Your task to perform on an android device: open app "Pandora - Music & Podcasts" (install if not already installed) and go to login screen Image 0: 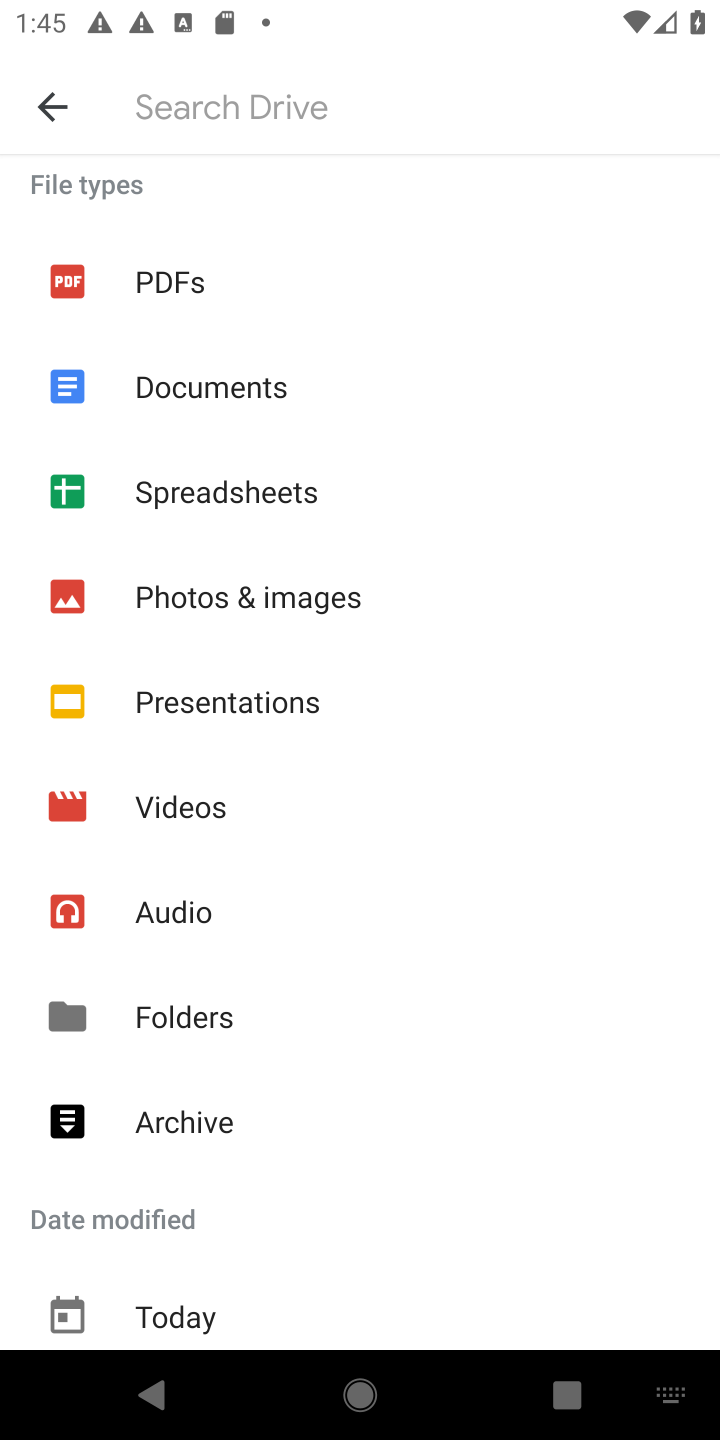
Step 0: press home button
Your task to perform on an android device: open app "Pandora - Music & Podcasts" (install if not already installed) and go to login screen Image 1: 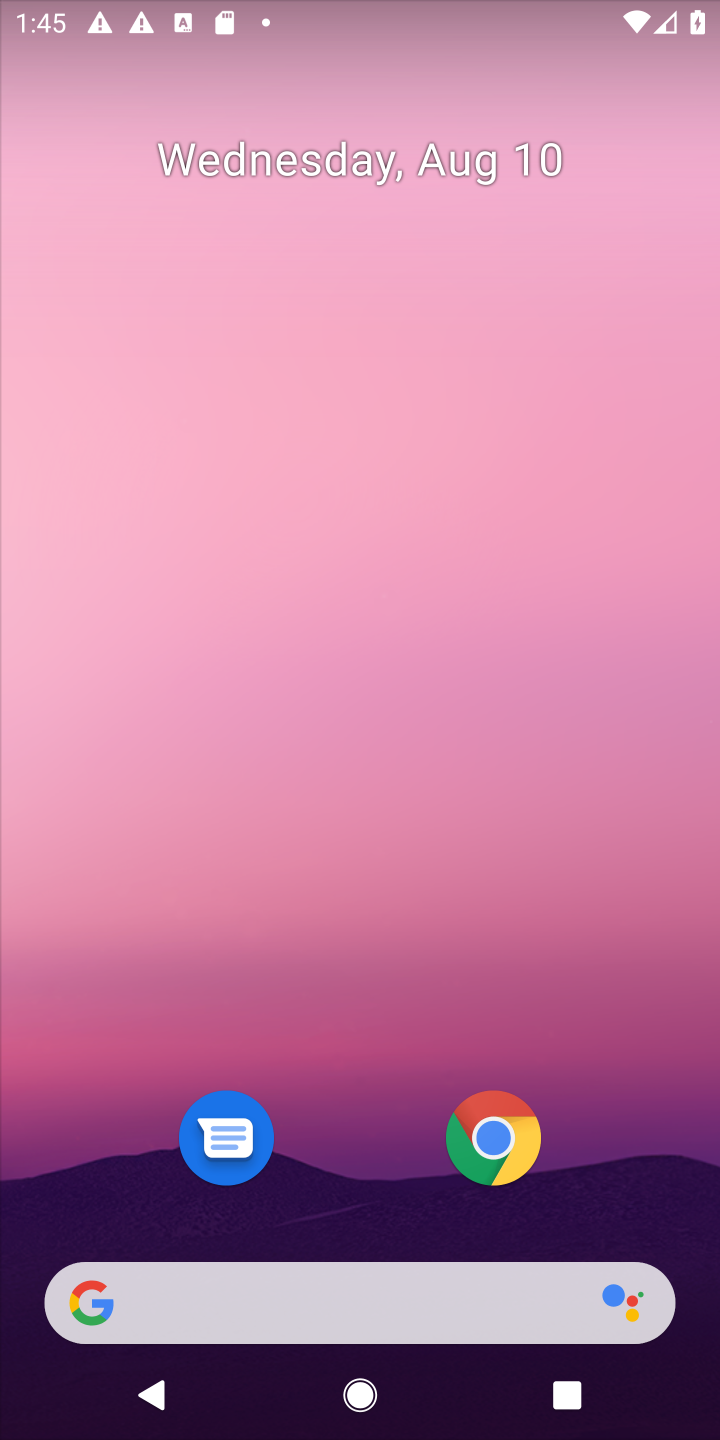
Step 1: drag from (614, 1048) to (626, 85)
Your task to perform on an android device: open app "Pandora - Music & Podcasts" (install if not already installed) and go to login screen Image 2: 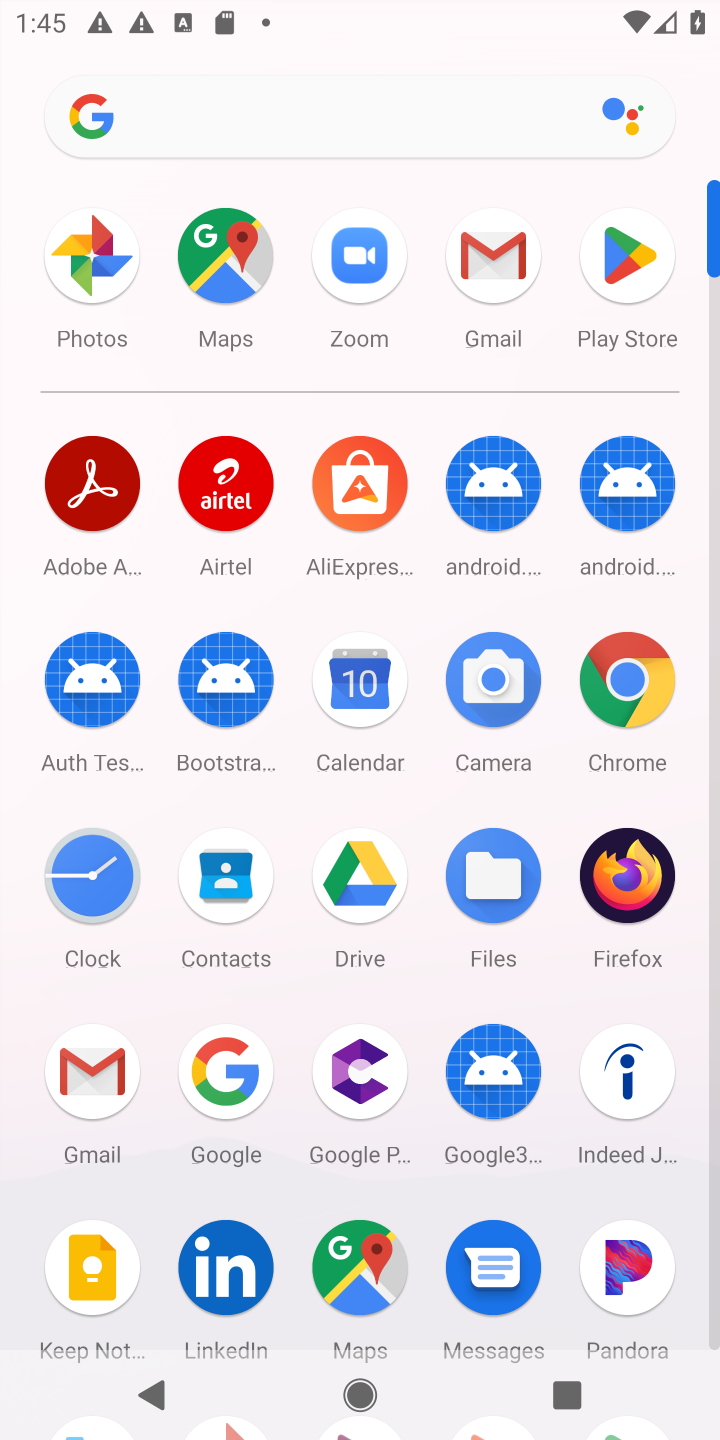
Step 2: click (639, 263)
Your task to perform on an android device: open app "Pandora - Music & Podcasts" (install if not already installed) and go to login screen Image 3: 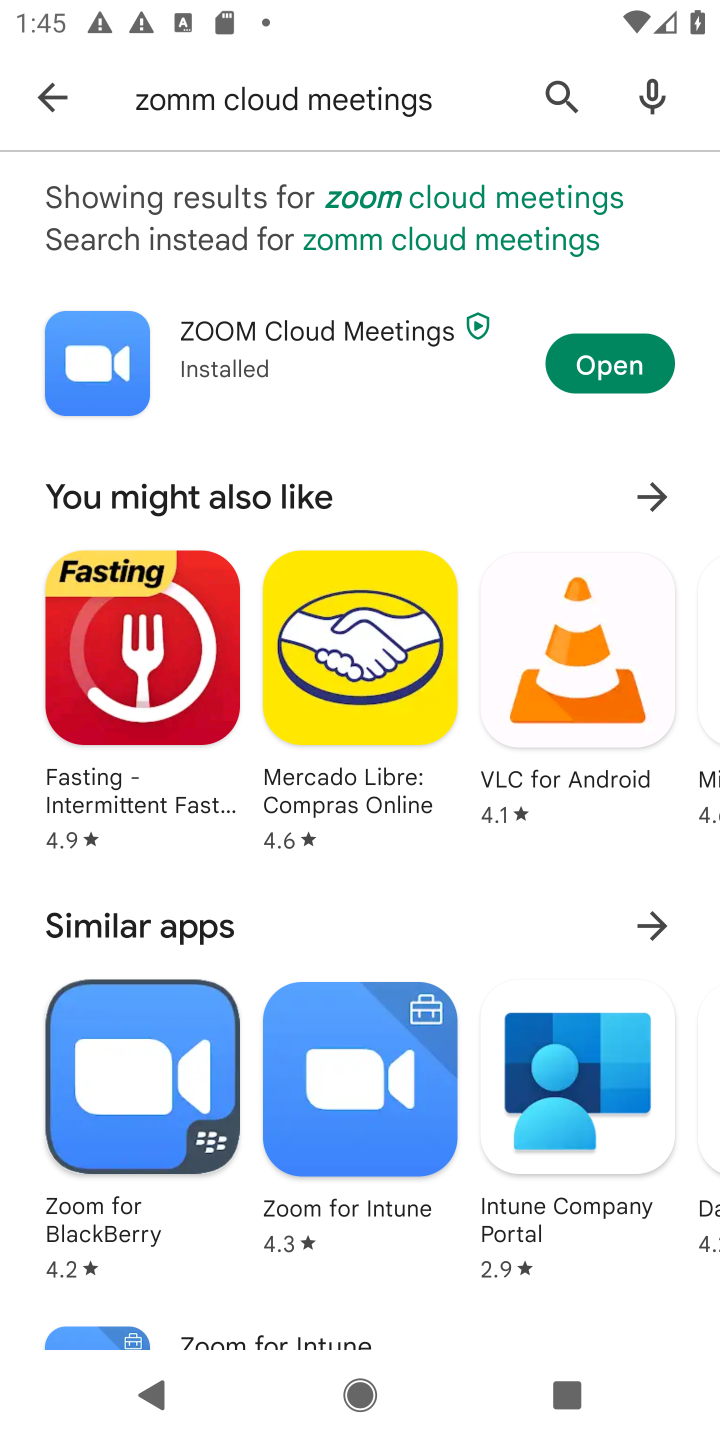
Step 3: click (566, 94)
Your task to perform on an android device: open app "Pandora - Music & Podcasts" (install if not already installed) and go to login screen Image 4: 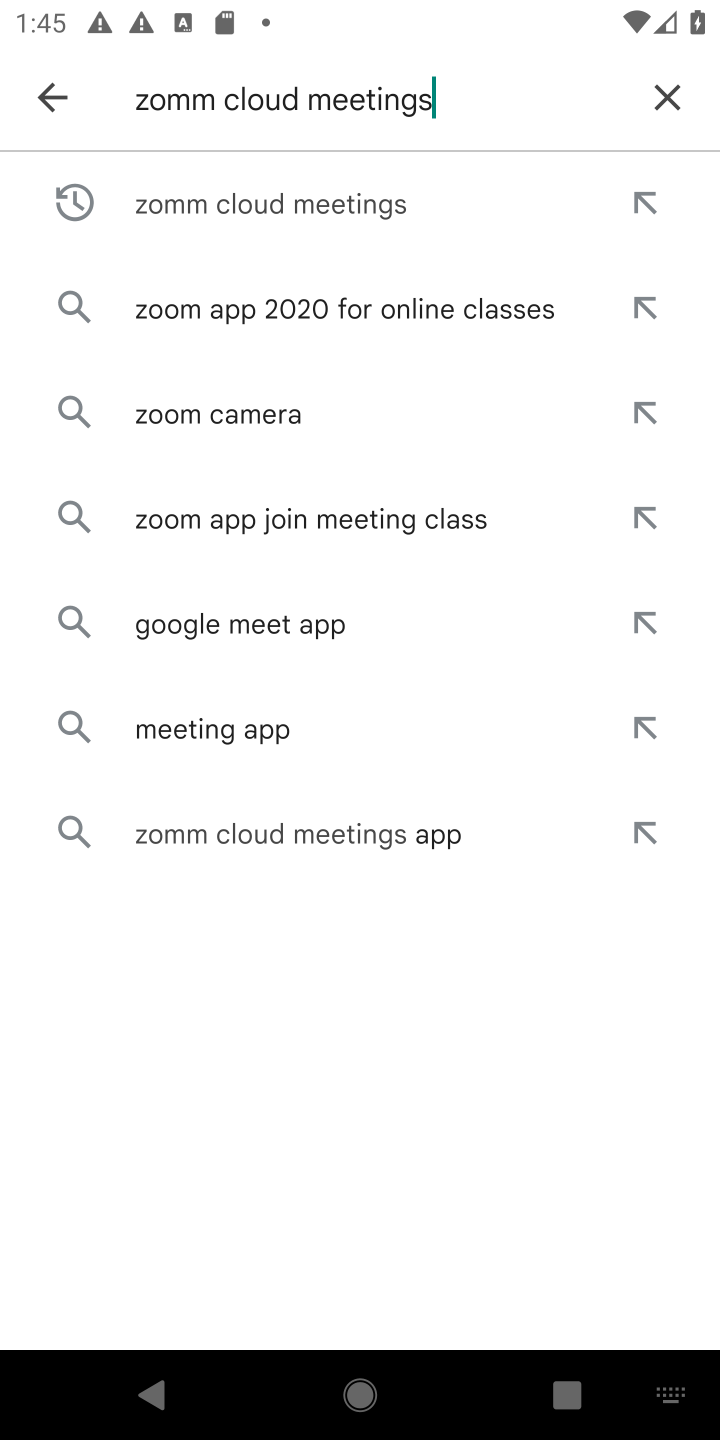
Step 4: click (675, 87)
Your task to perform on an android device: open app "Pandora - Music & Podcasts" (install if not already installed) and go to login screen Image 5: 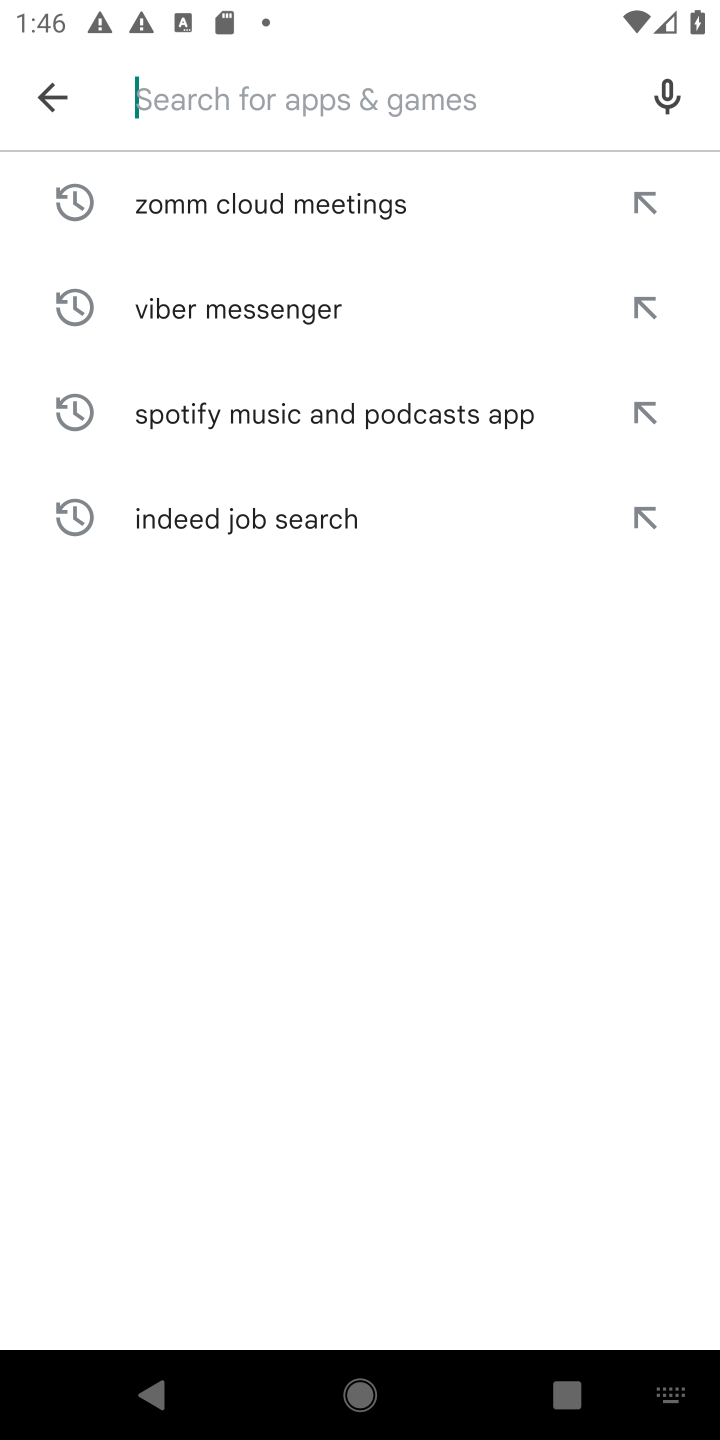
Step 5: type "Pandora - Music & Podcasts"
Your task to perform on an android device: open app "Pandora - Music & Podcasts" (install if not already installed) and go to login screen Image 6: 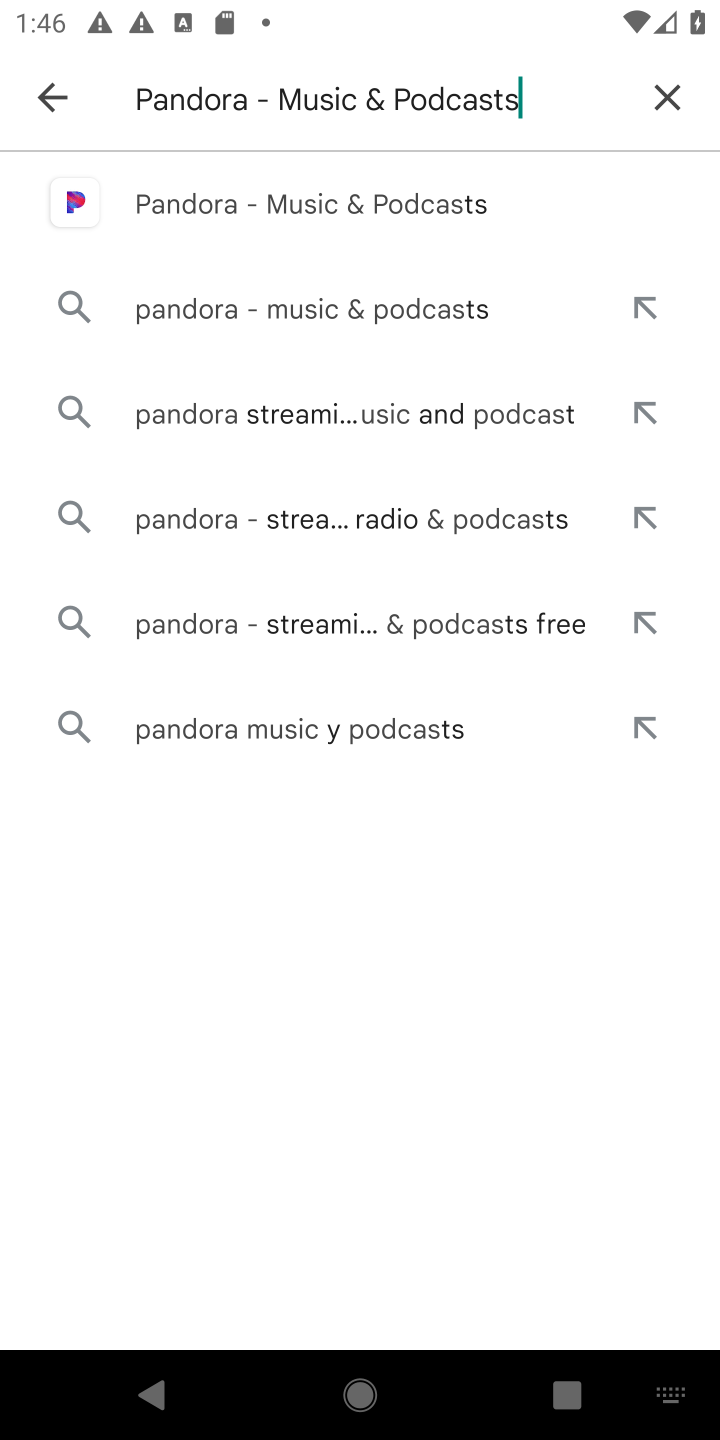
Step 6: press enter
Your task to perform on an android device: open app "Pandora - Music & Podcasts" (install if not already installed) and go to login screen Image 7: 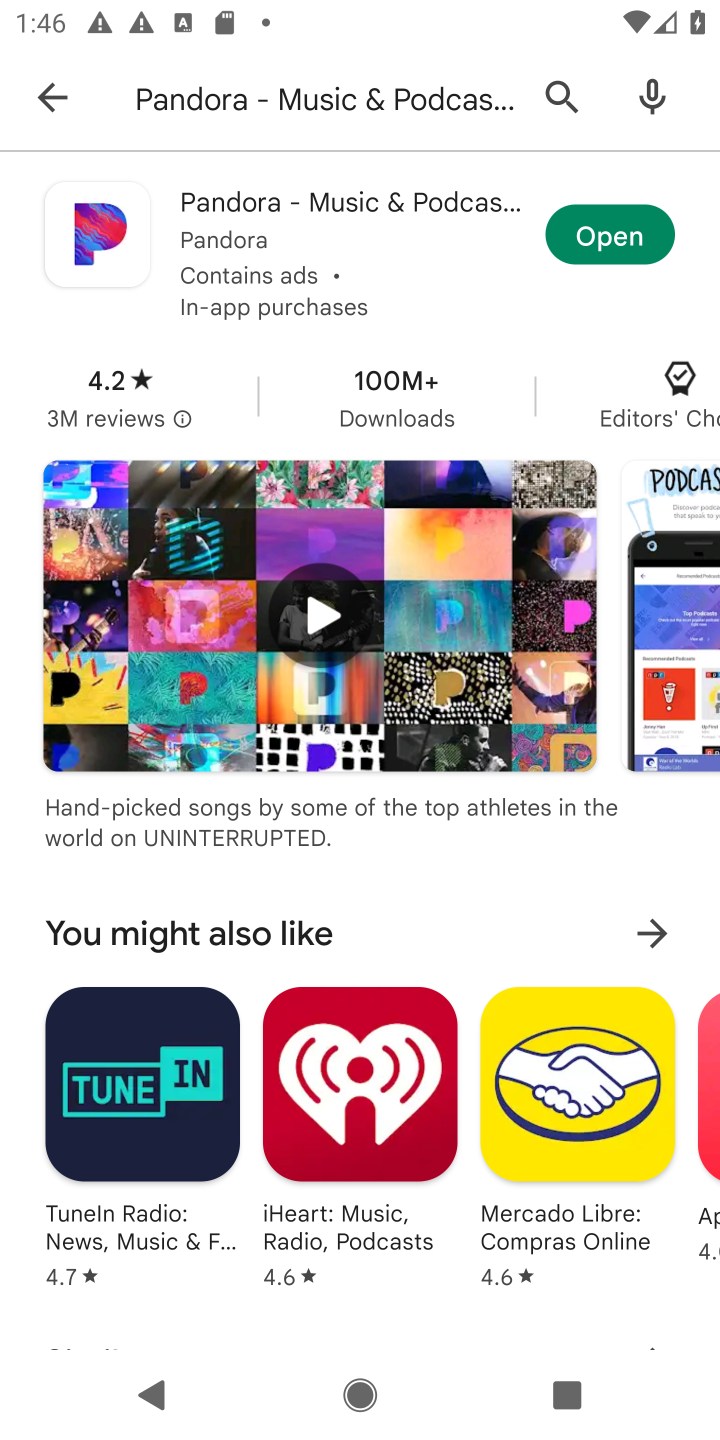
Step 7: click (612, 239)
Your task to perform on an android device: open app "Pandora - Music & Podcasts" (install if not already installed) and go to login screen Image 8: 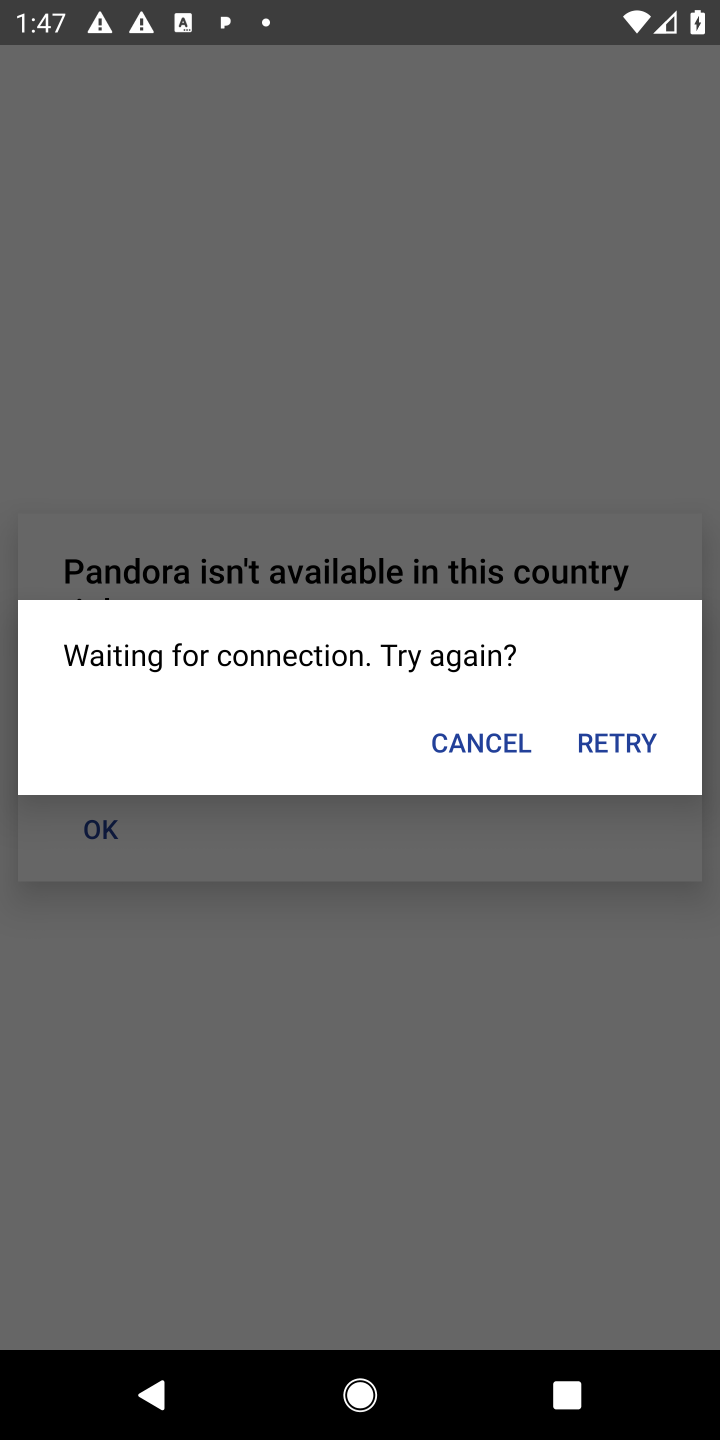
Step 8: task complete